Your task to perform on an android device: install app "Google News" Image 0: 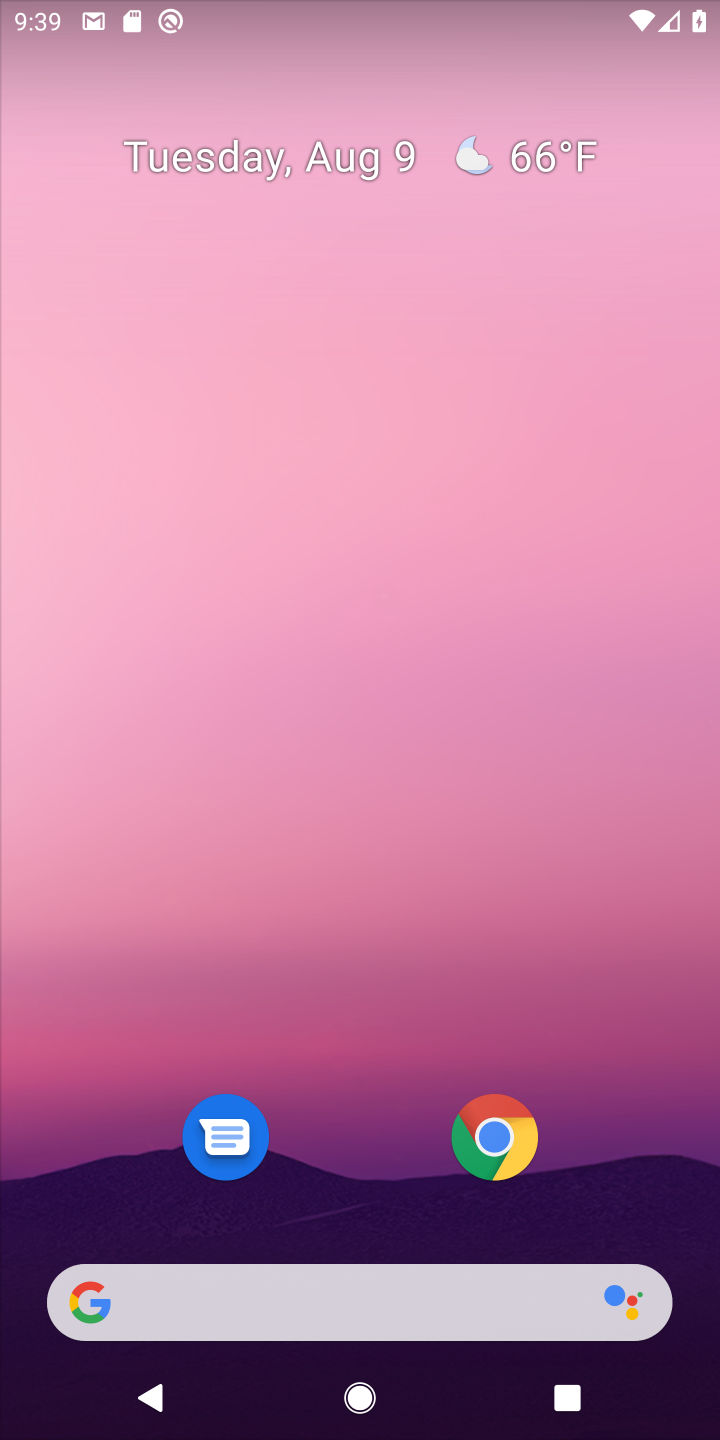
Step 0: drag from (401, 1084) to (372, 239)
Your task to perform on an android device: install app "Google News" Image 1: 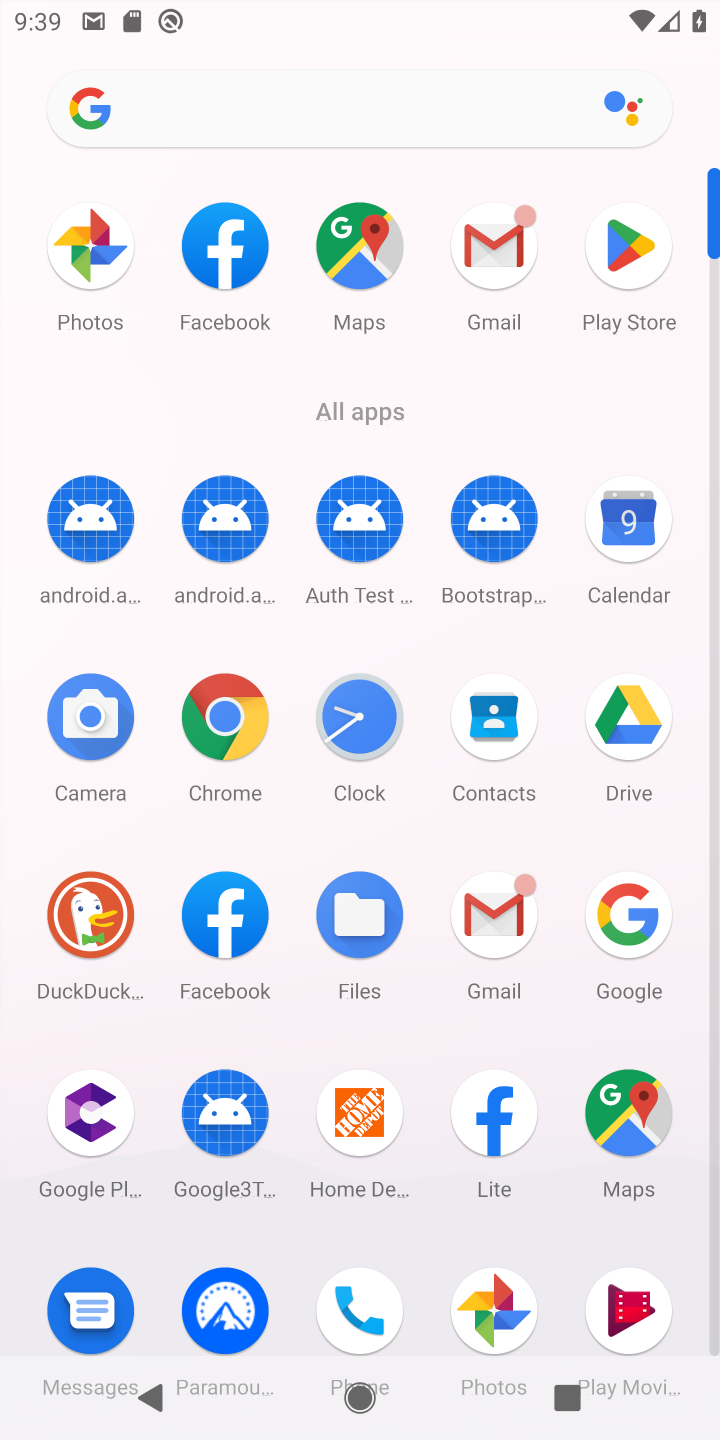
Step 1: click (609, 245)
Your task to perform on an android device: install app "Google News" Image 2: 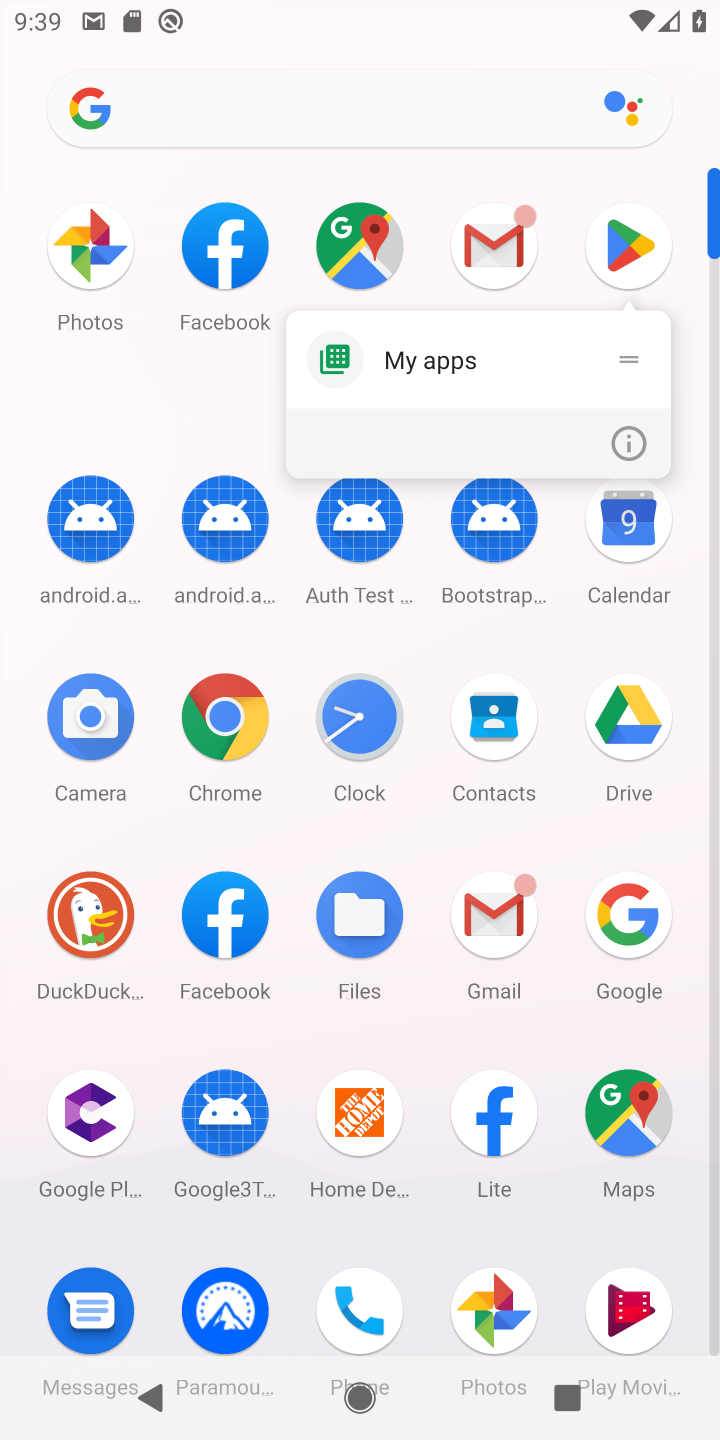
Step 2: click (621, 241)
Your task to perform on an android device: install app "Google News" Image 3: 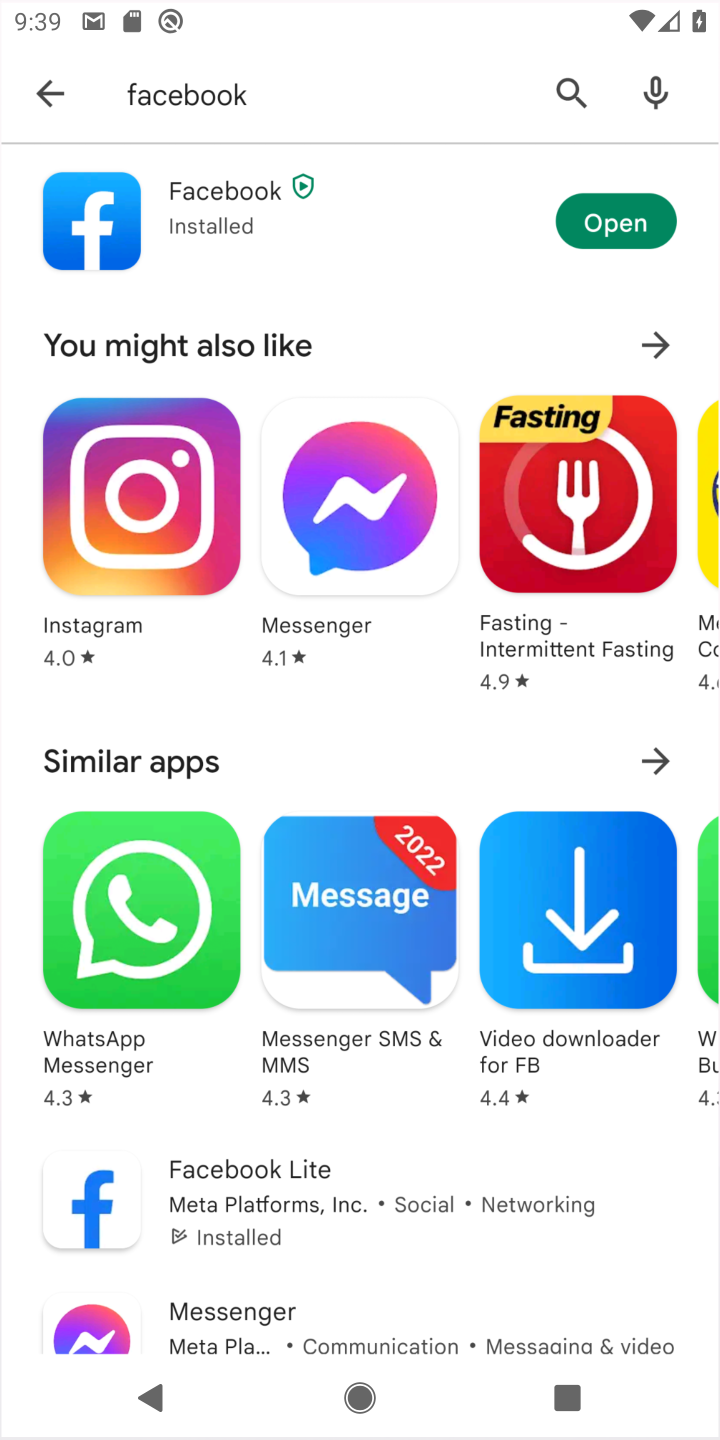
Step 3: click (621, 241)
Your task to perform on an android device: install app "Google News" Image 4: 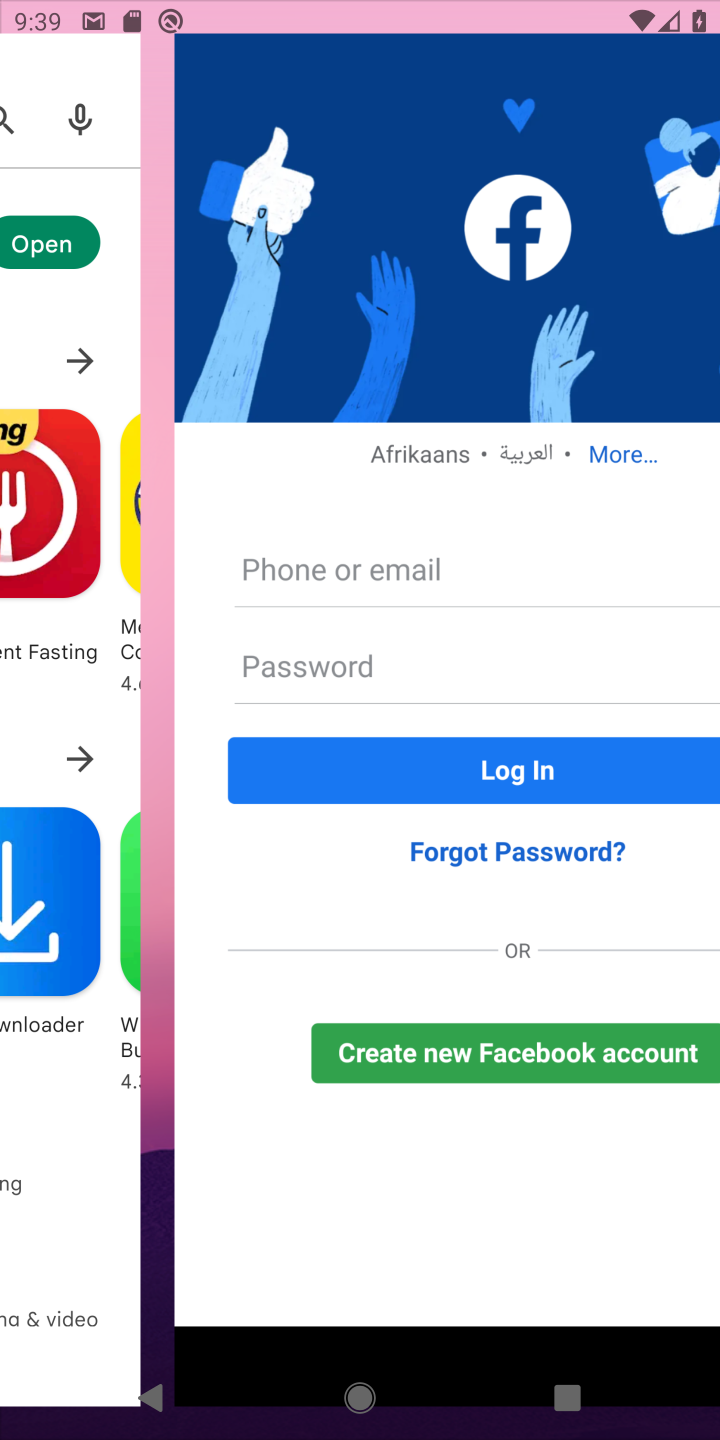
Step 4: click (548, 100)
Your task to perform on an android device: install app "Google News" Image 5: 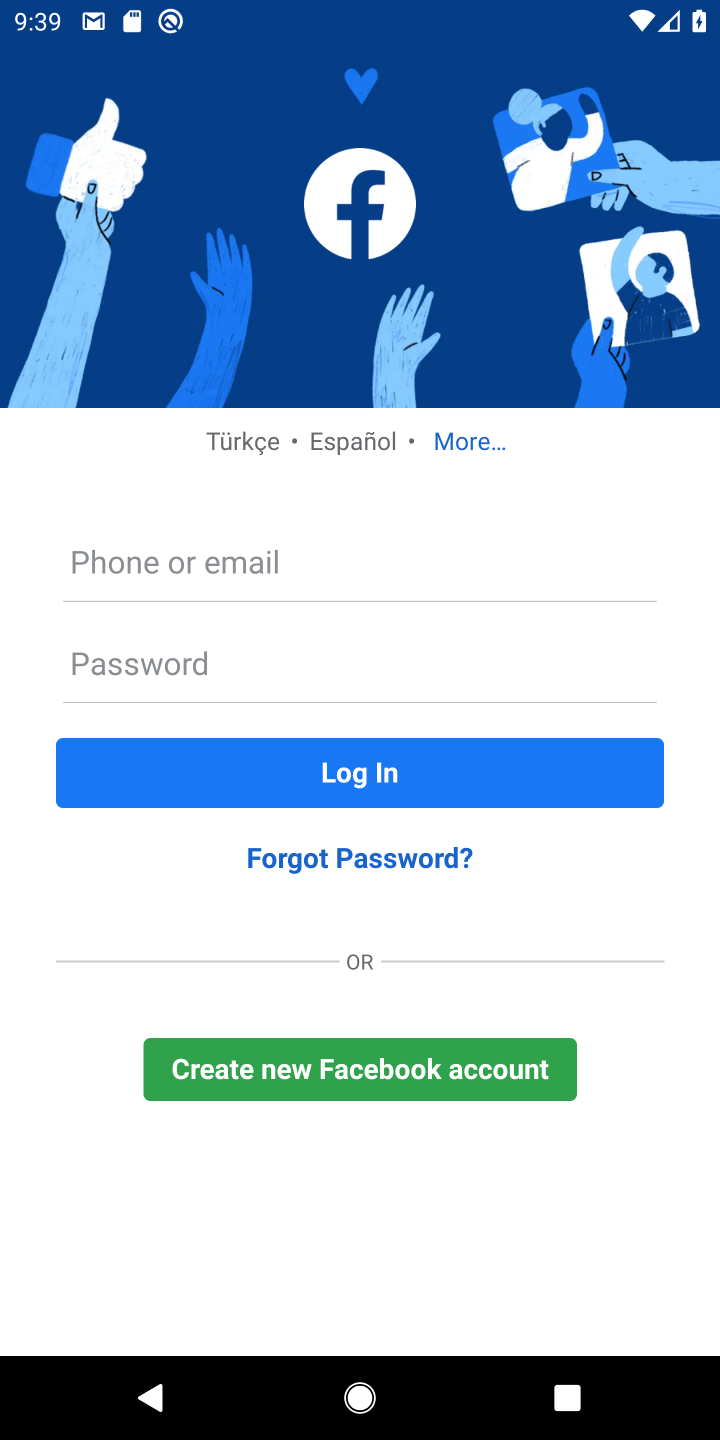
Step 5: press back button
Your task to perform on an android device: install app "Google News" Image 6: 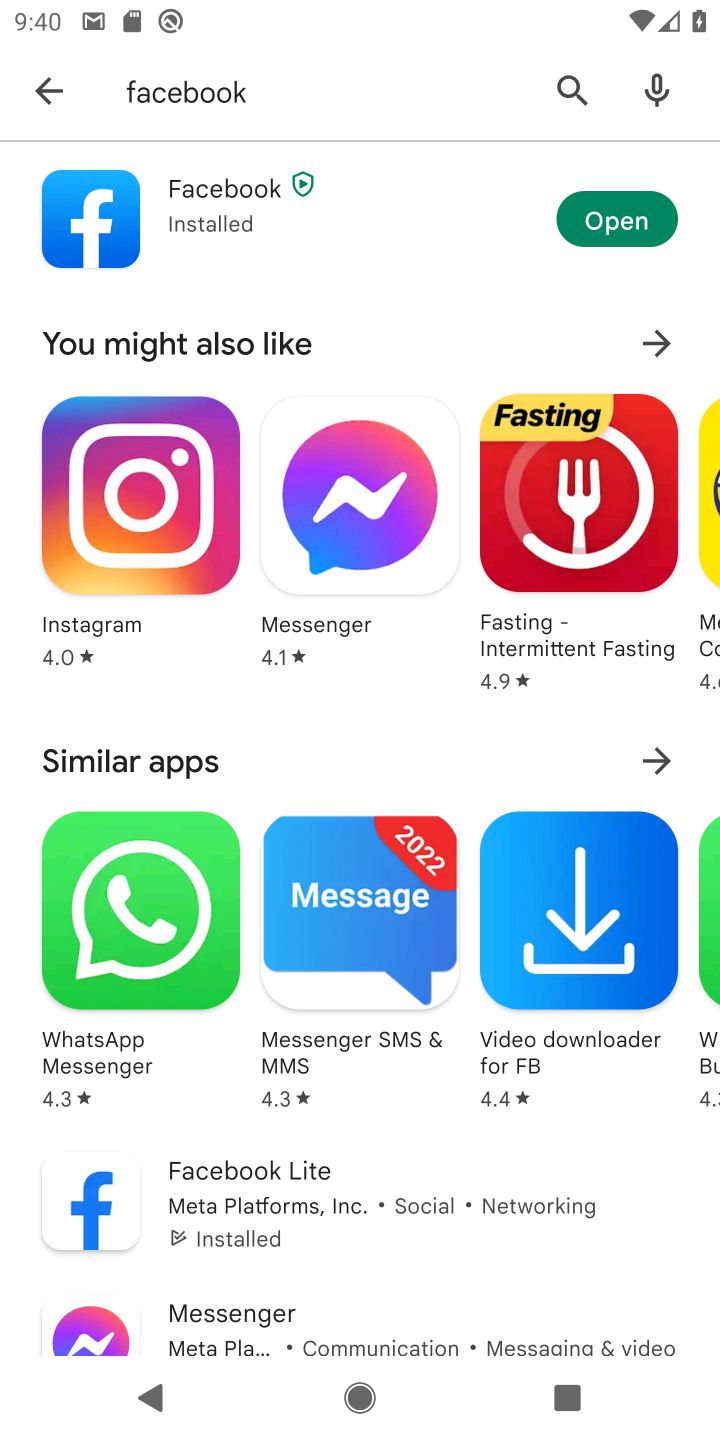
Step 6: click (564, 81)
Your task to perform on an android device: install app "Google News" Image 7: 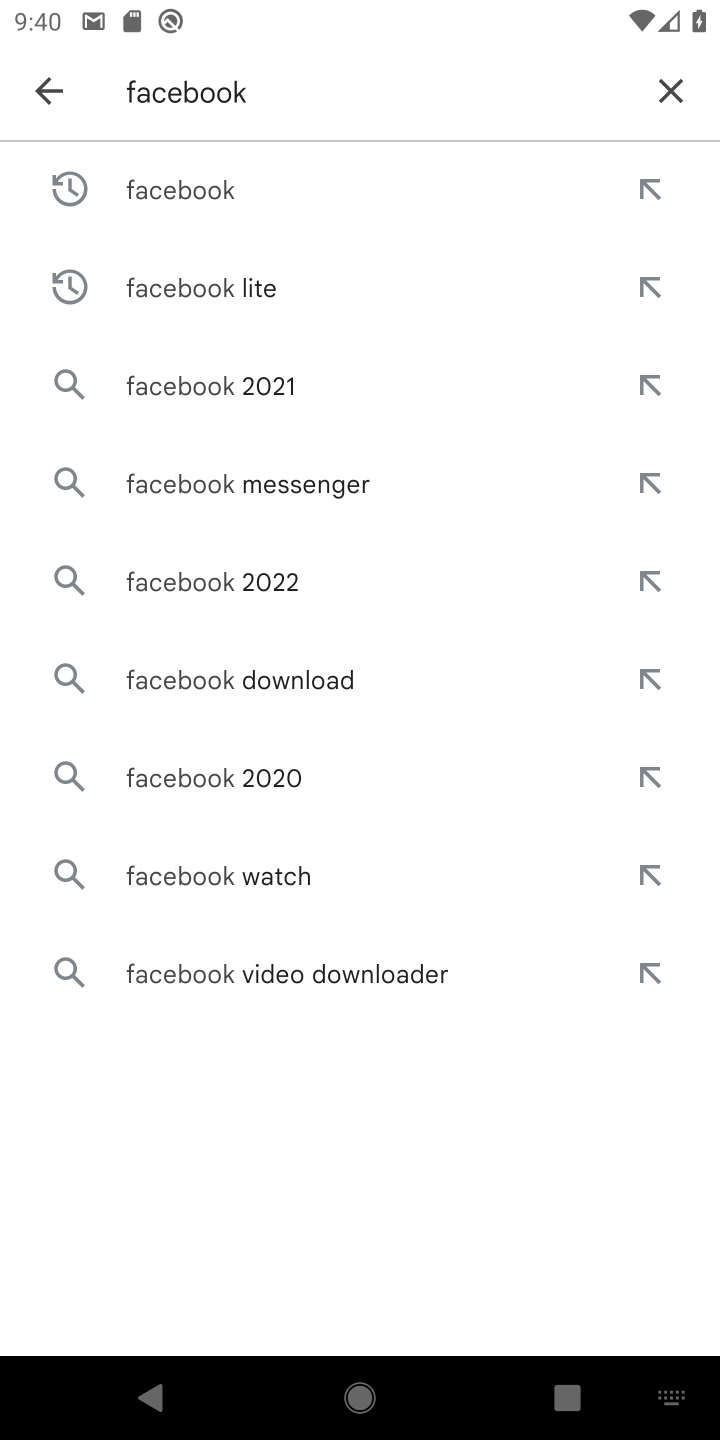
Step 7: click (673, 83)
Your task to perform on an android device: install app "Google News" Image 8: 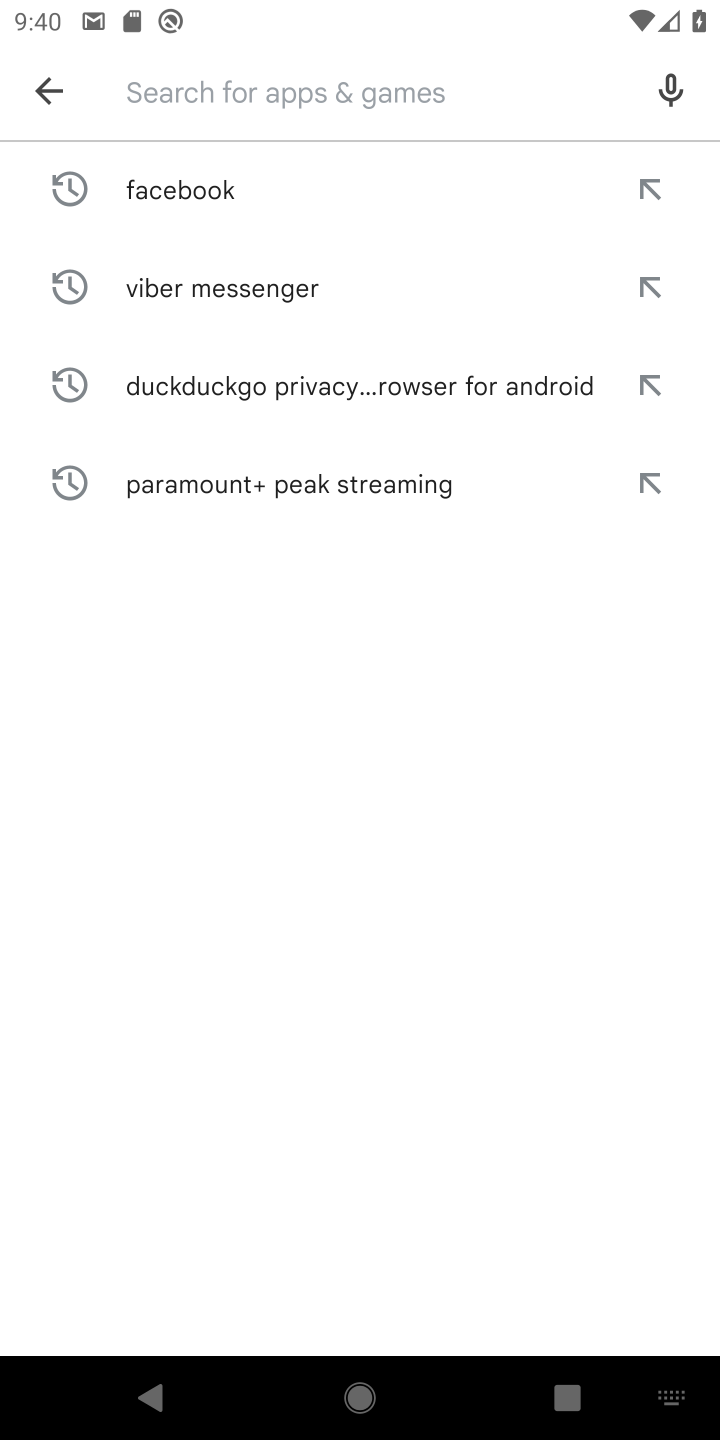
Step 8: type "Google News"
Your task to perform on an android device: install app "Google News" Image 9: 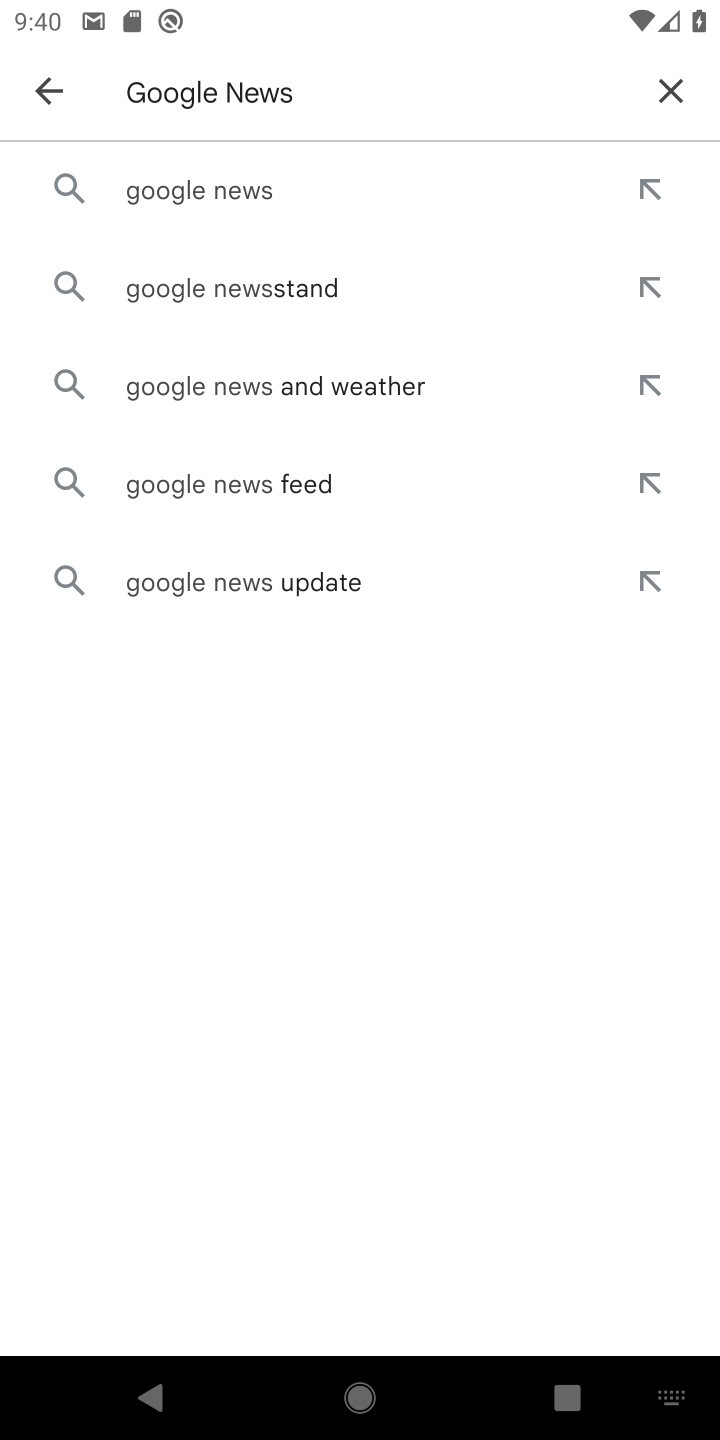
Step 9: click (149, 195)
Your task to perform on an android device: install app "Google News" Image 10: 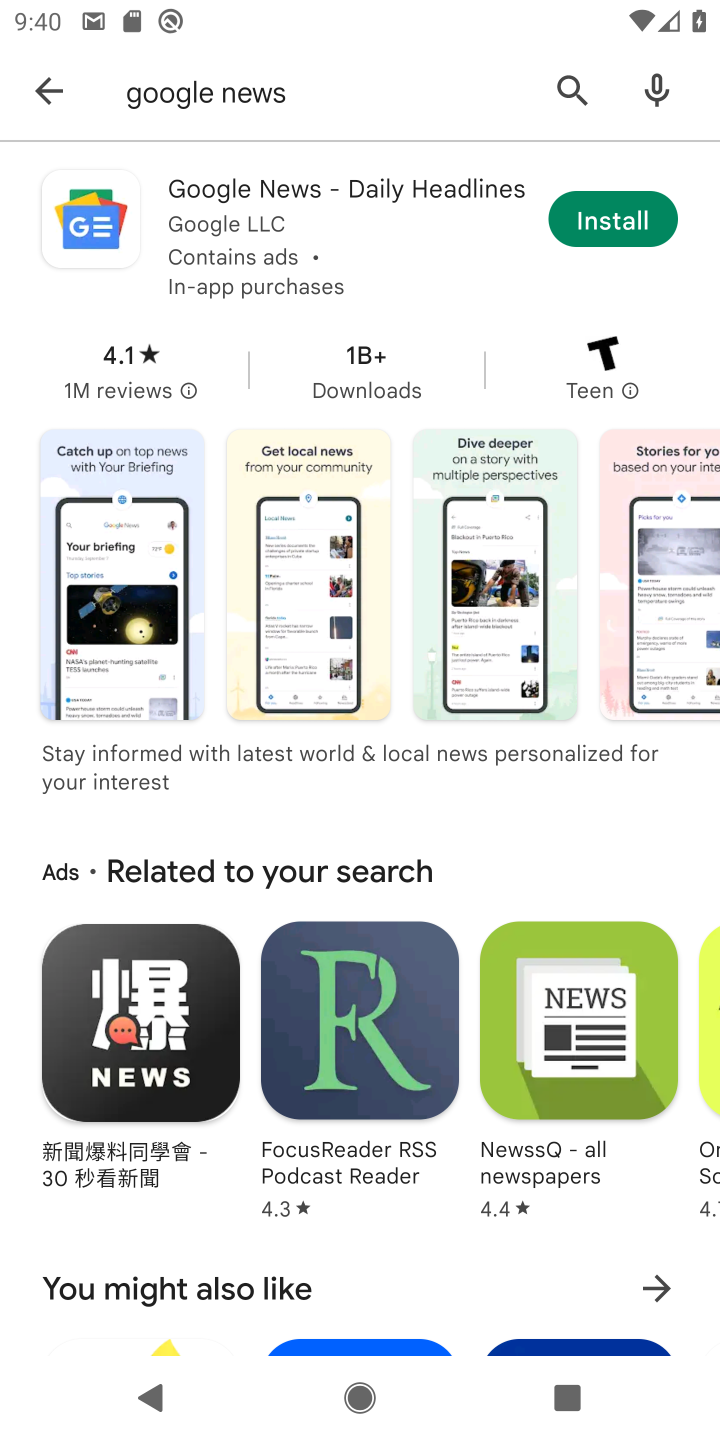
Step 10: click (609, 217)
Your task to perform on an android device: install app "Google News" Image 11: 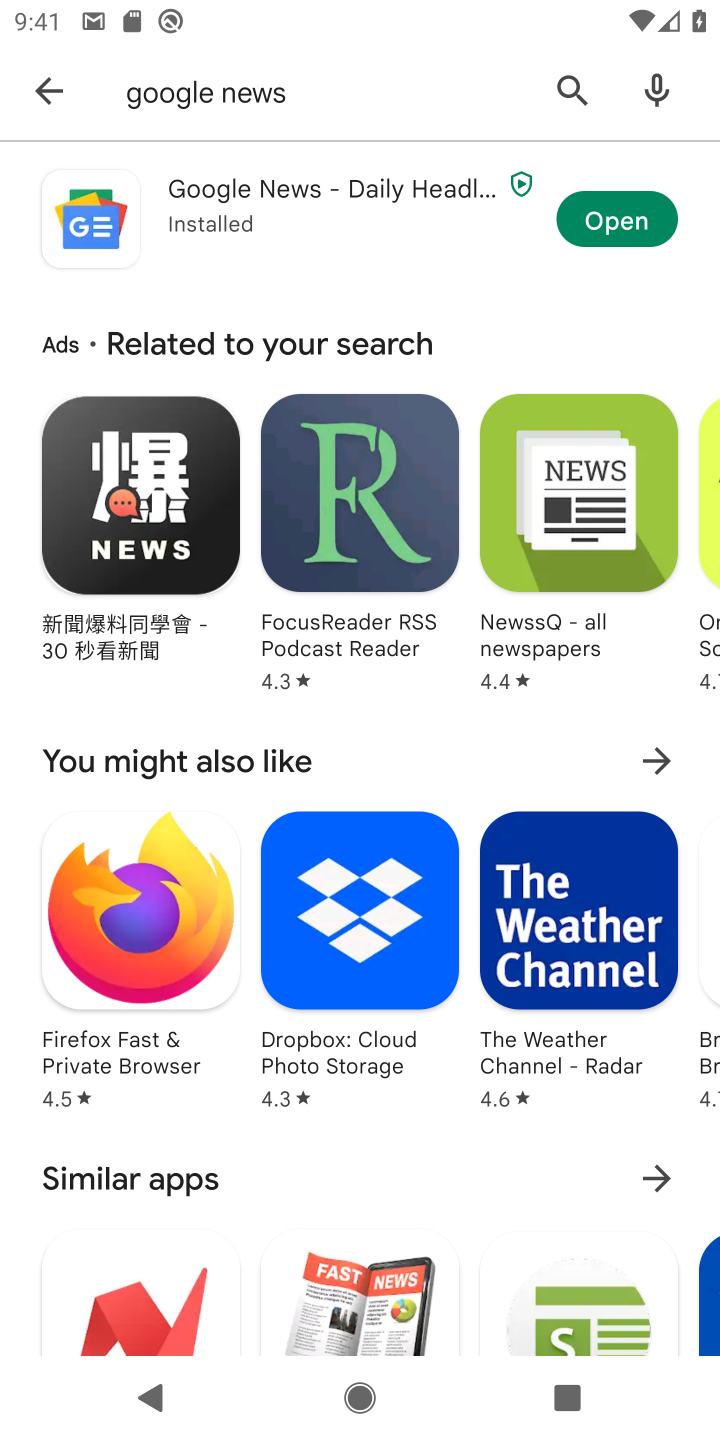
Step 11: task complete